Your task to perform on an android device: Open the phone app and click the voicemail tab. Image 0: 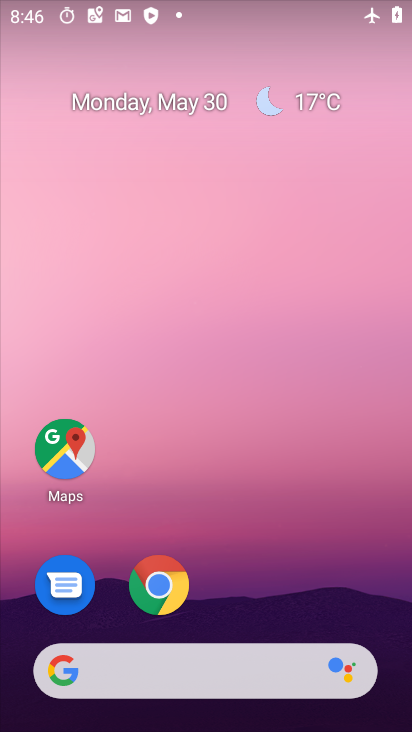
Step 0: drag from (267, 436) to (329, 55)
Your task to perform on an android device: Open the phone app and click the voicemail tab. Image 1: 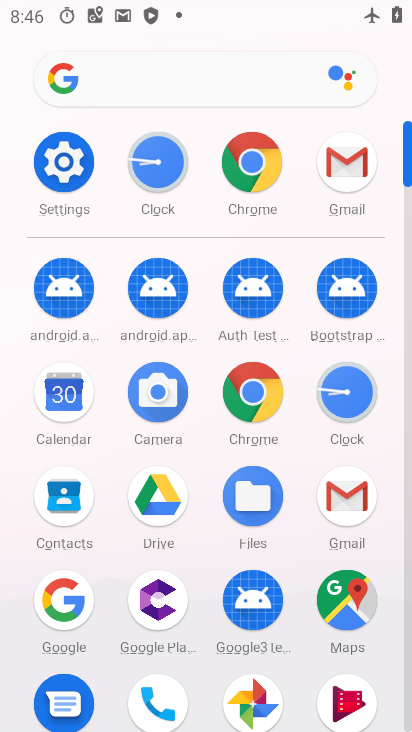
Step 1: drag from (202, 597) to (323, 27)
Your task to perform on an android device: Open the phone app and click the voicemail tab. Image 2: 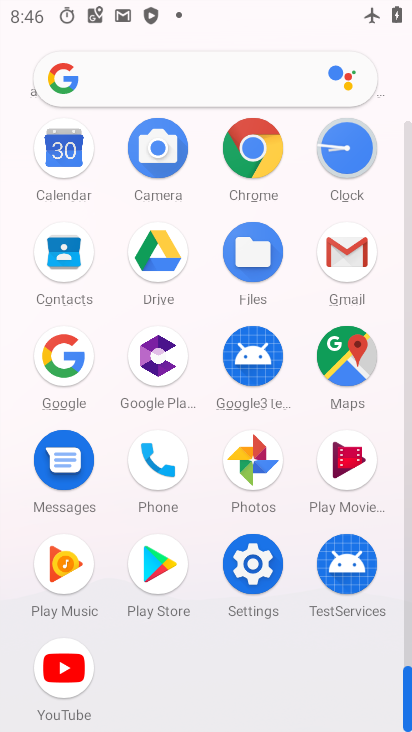
Step 2: click (166, 428)
Your task to perform on an android device: Open the phone app and click the voicemail tab. Image 3: 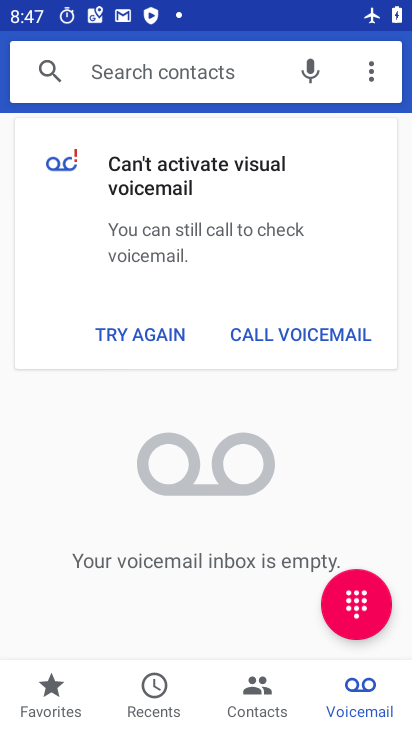
Step 3: click (350, 680)
Your task to perform on an android device: Open the phone app and click the voicemail tab. Image 4: 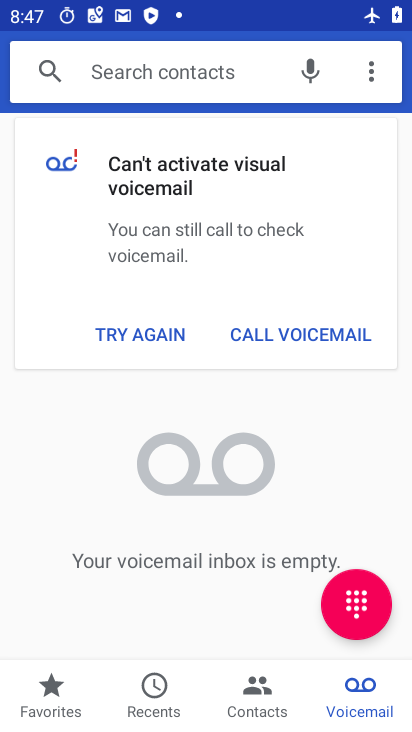
Step 4: task complete